Your task to perform on an android device: install app "Pluto TV - Live TV and Movies" Image 0: 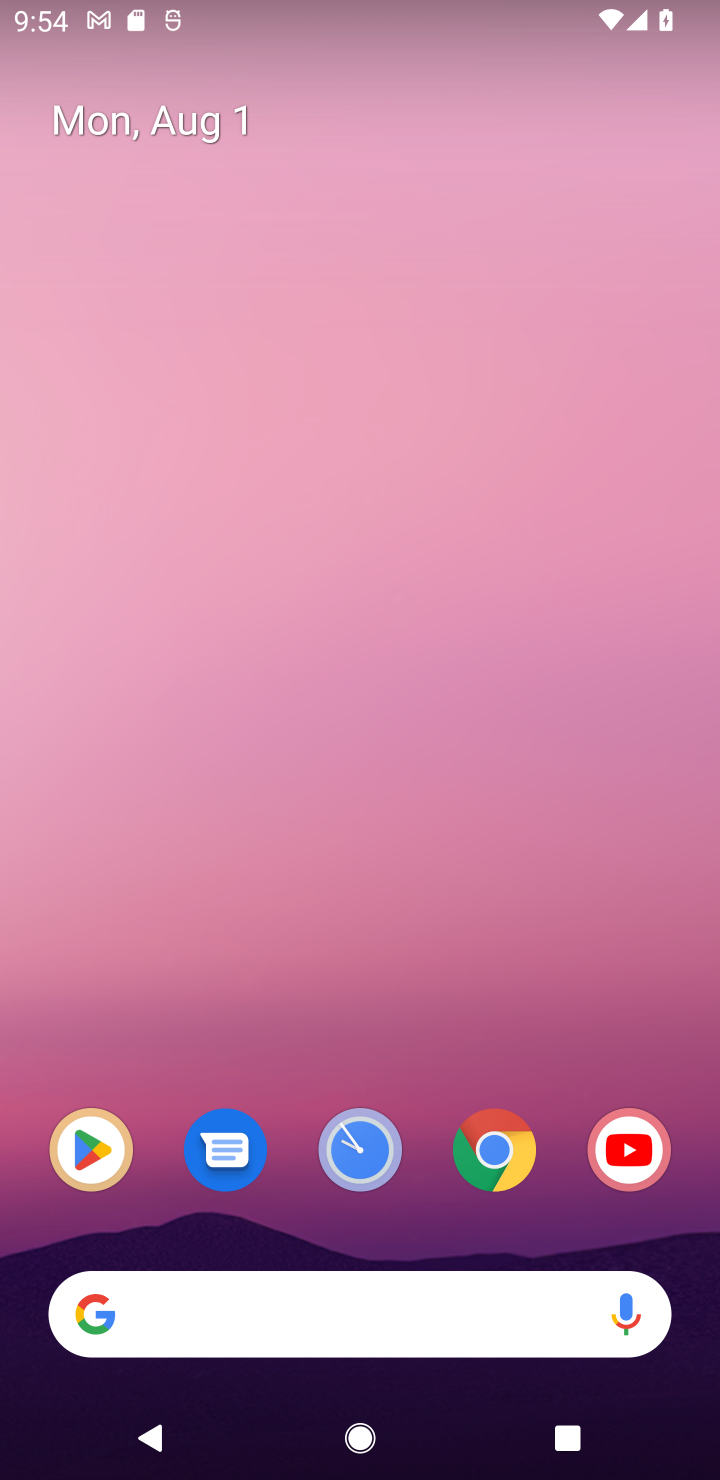
Step 0: drag from (253, 1332) to (285, 383)
Your task to perform on an android device: install app "Pluto TV - Live TV and Movies" Image 1: 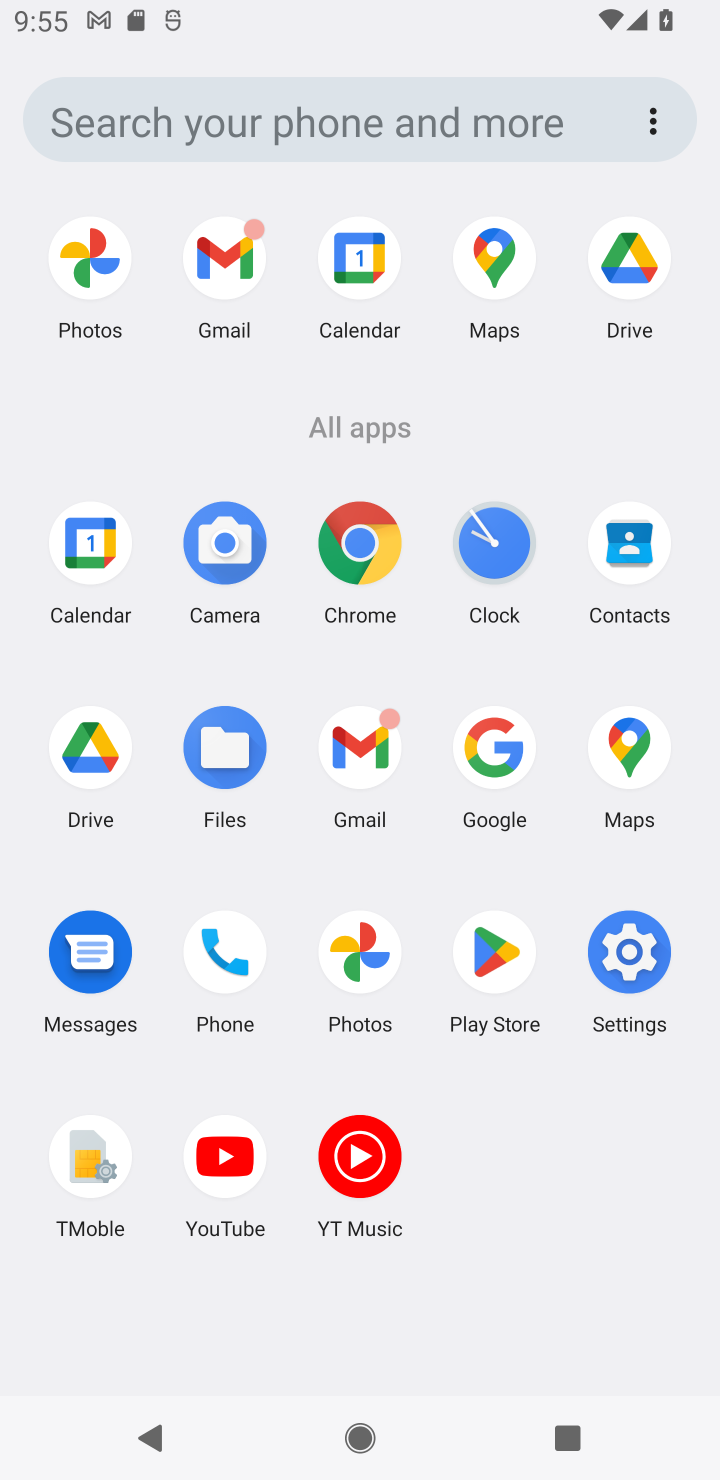
Step 1: click (483, 950)
Your task to perform on an android device: install app "Pluto TV - Live TV and Movies" Image 2: 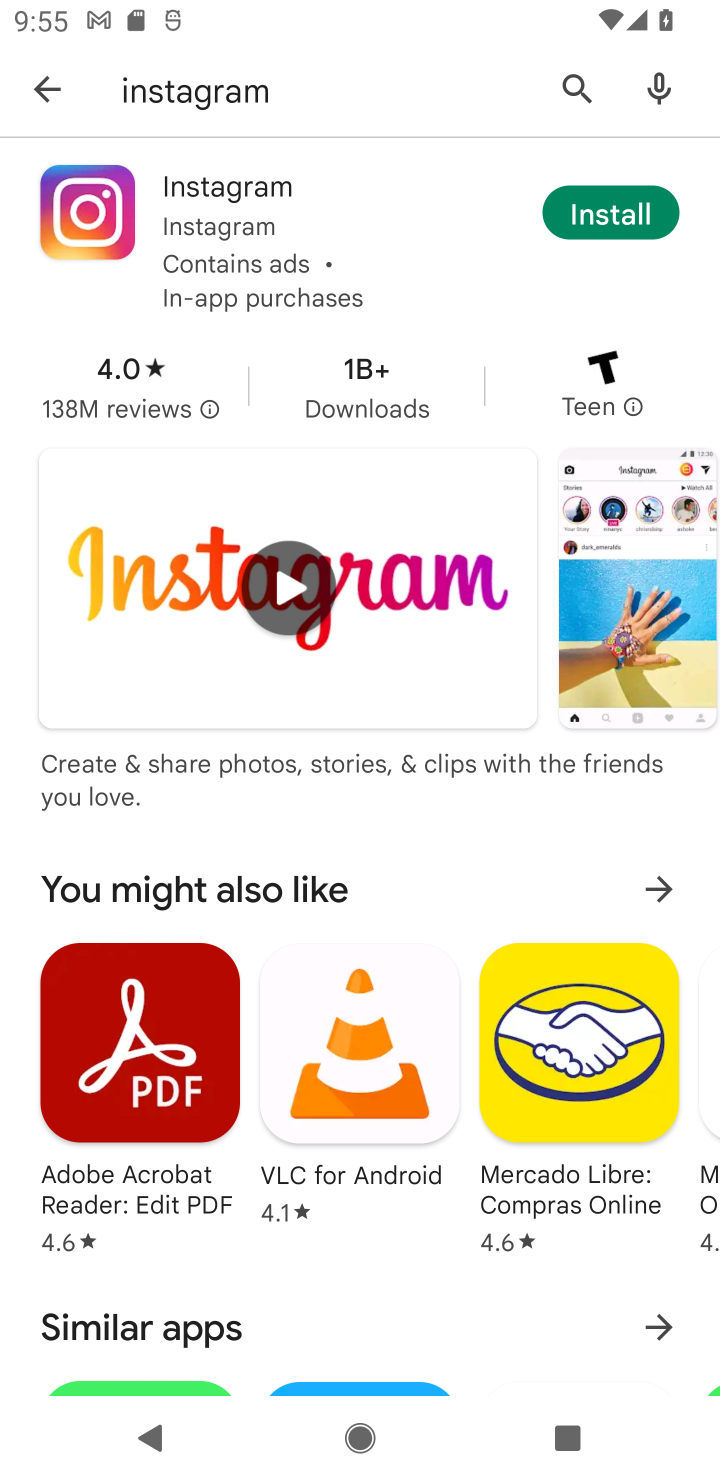
Step 2: click (582, 95)
Your task to perform on an android device: install app "Pluto TV - Live TV and Movies" Image 3: 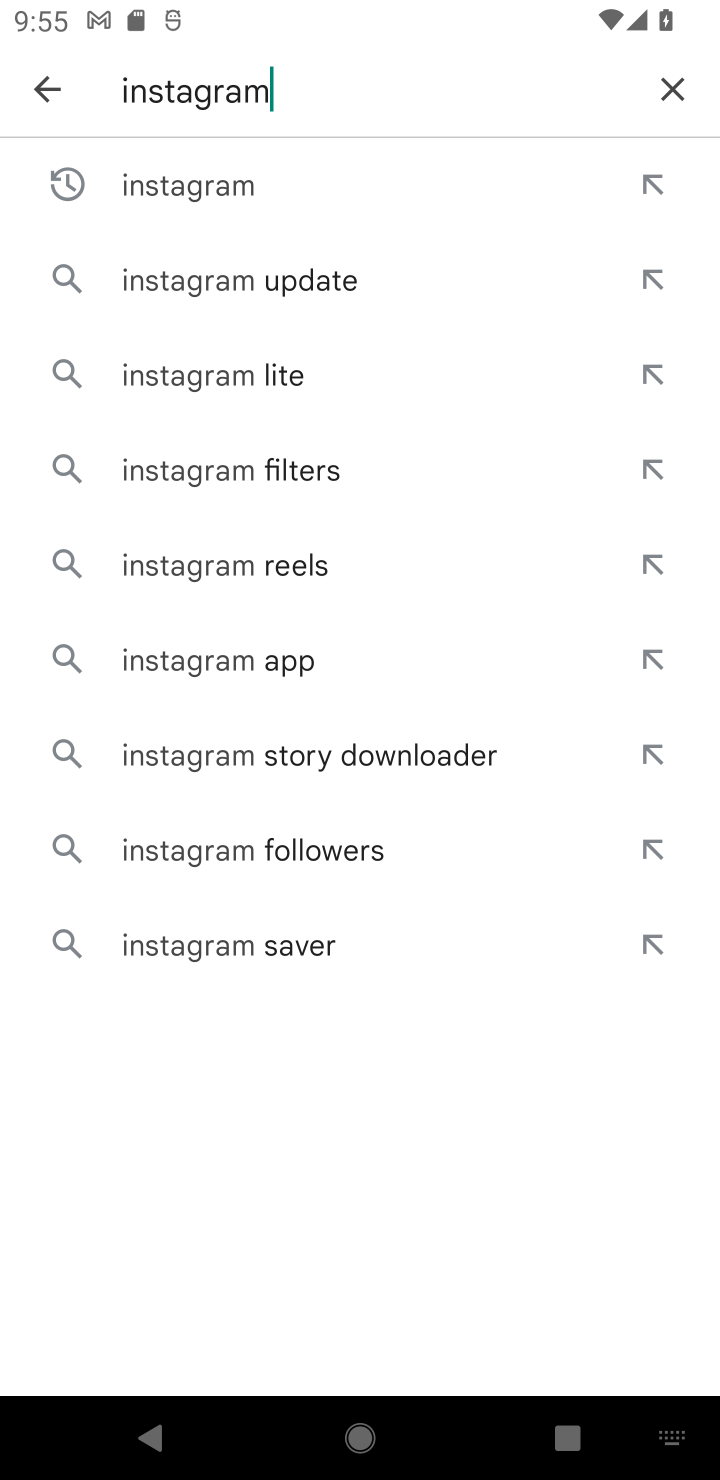
Step 3: click (678, 94)
Your task to perform on an android device: install app "Pluto TV - Live TV and Movies" Image 4: 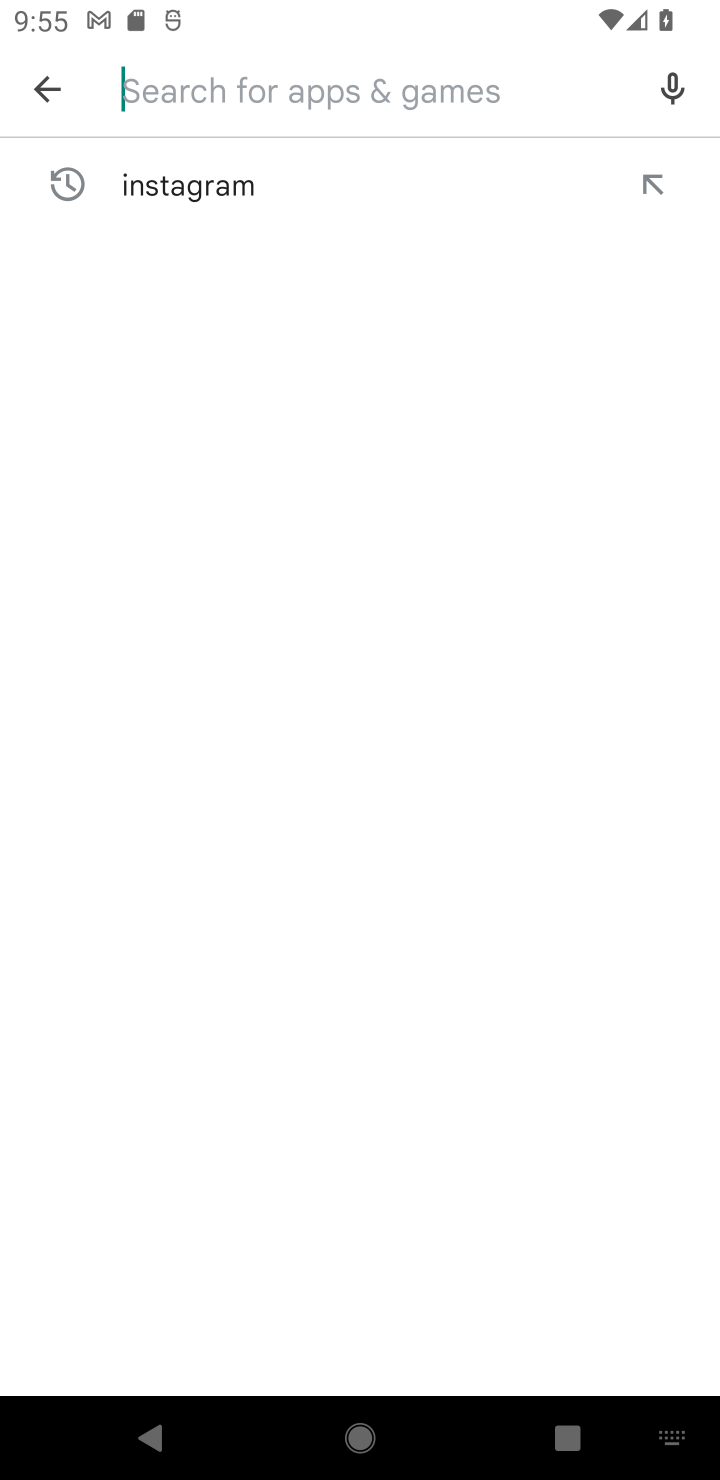
Step 4: type "Pluto TV - Live TV and Movies"
Your task to perform on an android device: install app "Pluto TV - Live TV and Movies" Image 5: 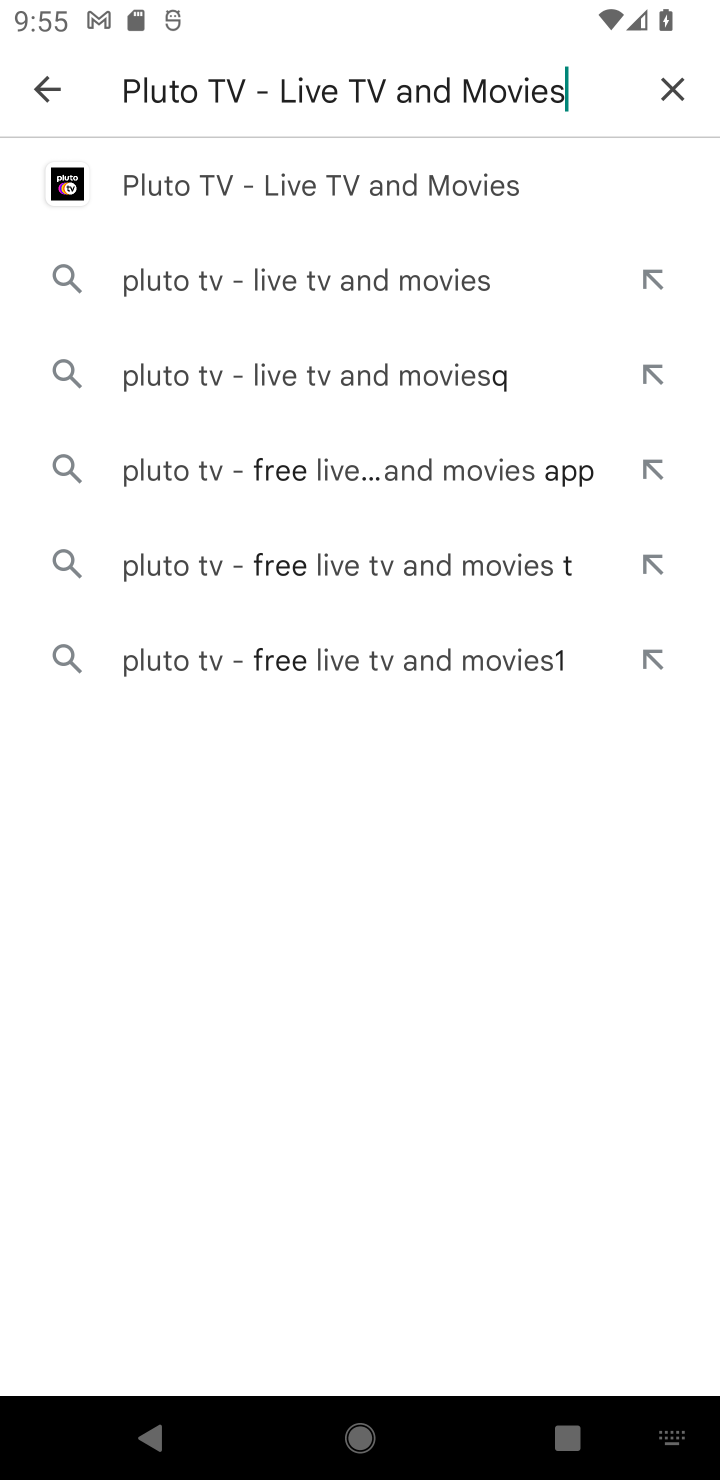
Step 5: click (241, 205)
Your task to perform on an android device: install app "Pluto TV - Live TV and Movies" Image 6: 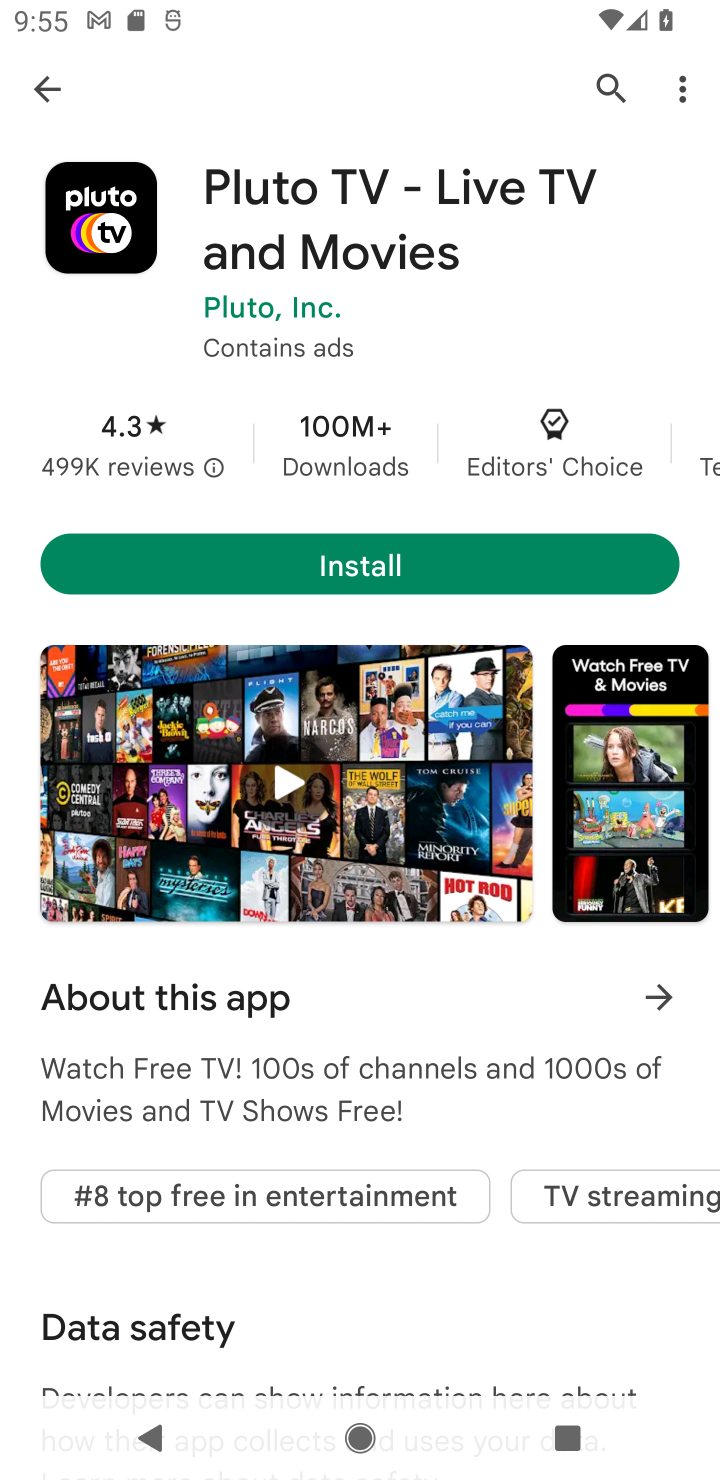
Step 6: click (279, 568)
Your task to perform on an android device: install app "Pluto TV - Live TV and Movies" Image 7: 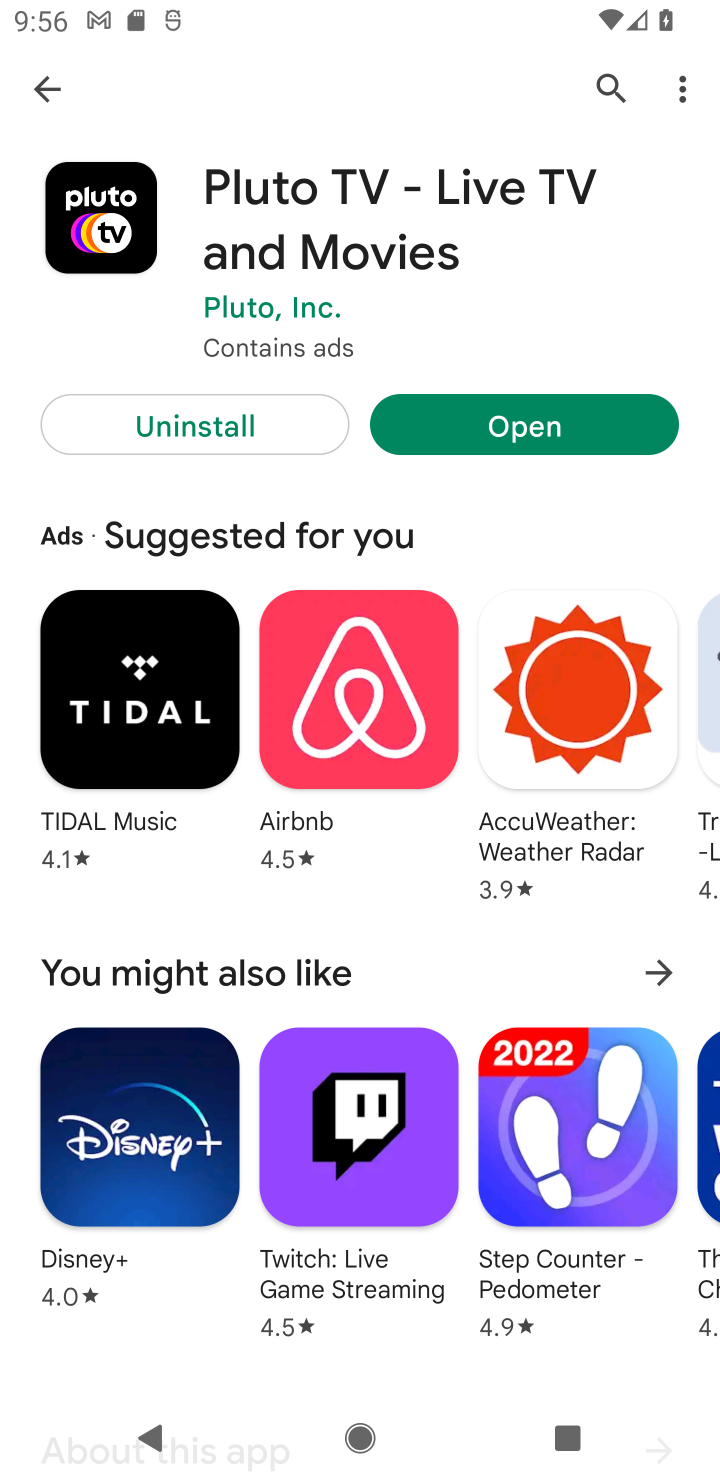
Step 7: task complete